Your task to perform on an android device: What's on my calendar tomorrow? Image 0: 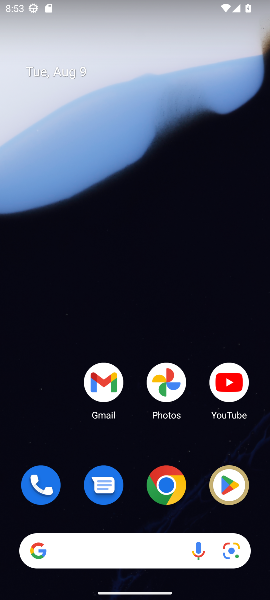
Step 0: drag from (111, 452) to (71, 155)
Your task to perform on an android device: What's on my calendar tomorrow? Image 1: 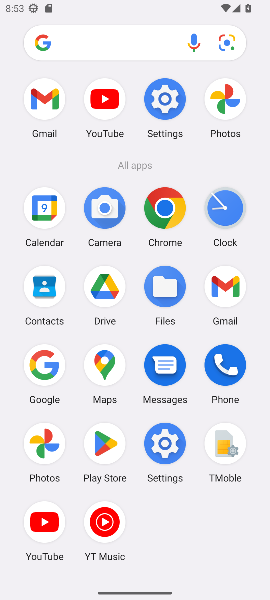
Step 1: click (53, 205)
Your task to perform on an android device: What's on my calendar tomorrow? Image 2: 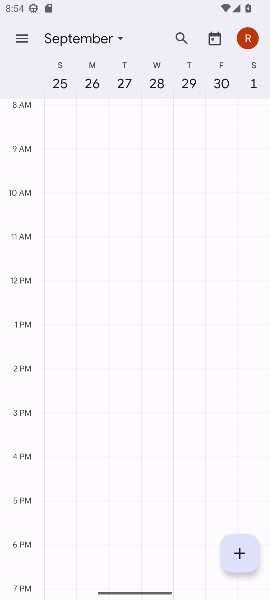
Step 2: click (59, 36)
Your task to perform on an android device: What's on my calendar tomorrow? Image 3: 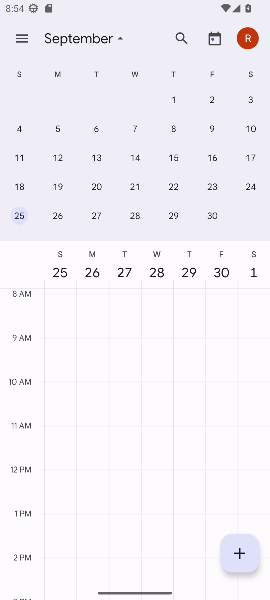
Step 3: drag from (54, 127) to (265, 126)
Your task to perform on an android device: What's on my calendar tomorrow? Image 4: 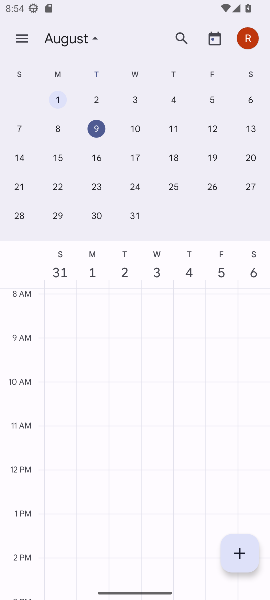
Step 4: click (97, 129)
Your task to perform on an android device: What's on my calendar tomorrow? Image 5: 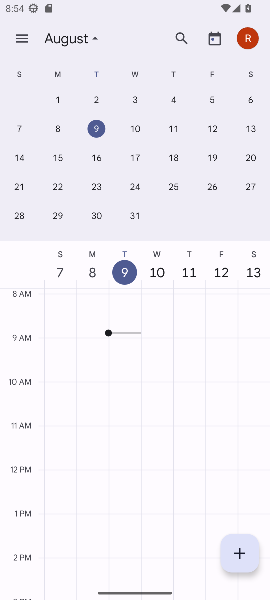
Step 5: drag from (162, 409) to (6, 84)
Your task to perform on an android device: What's on my calendar tomorrow? Image 6: 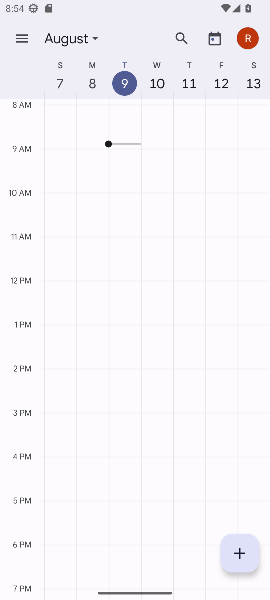
Step 6: click (18, 38)
Your task to perform on an android device: What's on my calendar tomorrow? Image 7: 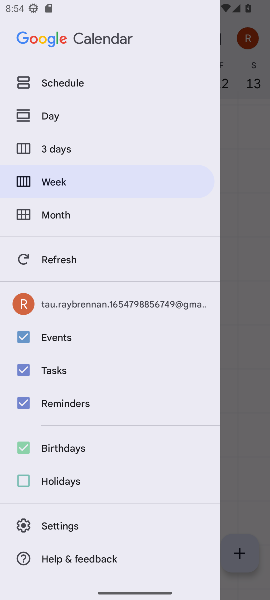
Step 7: click (57, 122)
Your task to perform on an android device: What's on my calendar tomorrow? Image 8: 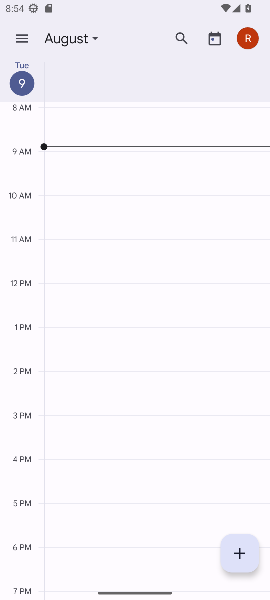
Step 8: click (92, 38)
Your task to perform on an android device: What's on my calendar tomorrow? Image 9: 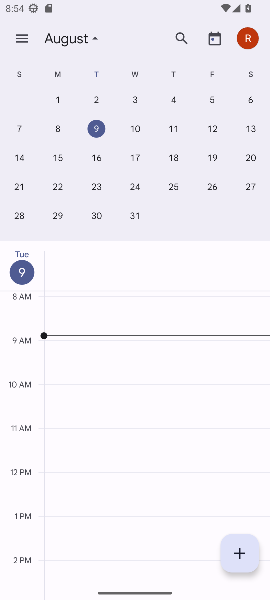
Step 9: click (141, 129)
Your task to perform on an android device: What's on my calendar tomorrow? Image 10: 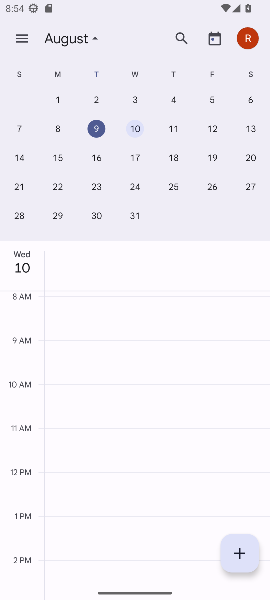
Step 10: task complete